Your task to perform on an android device: turn off airplane mode Image 0: 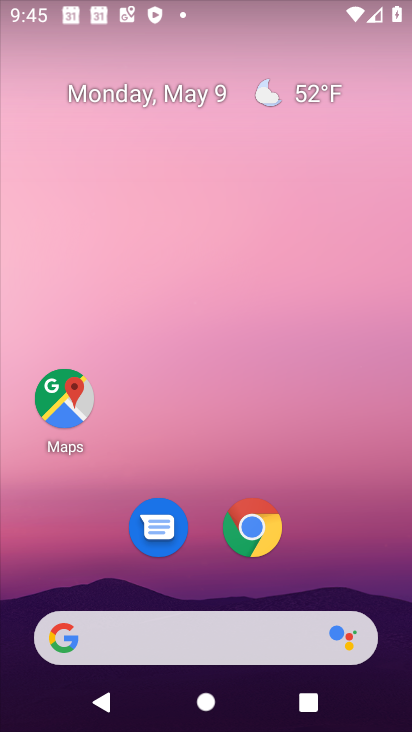
Step 0: drag from (213, 574) to (192, 78)
Your task to perform on an android device: turn off airplane mode Image 1: 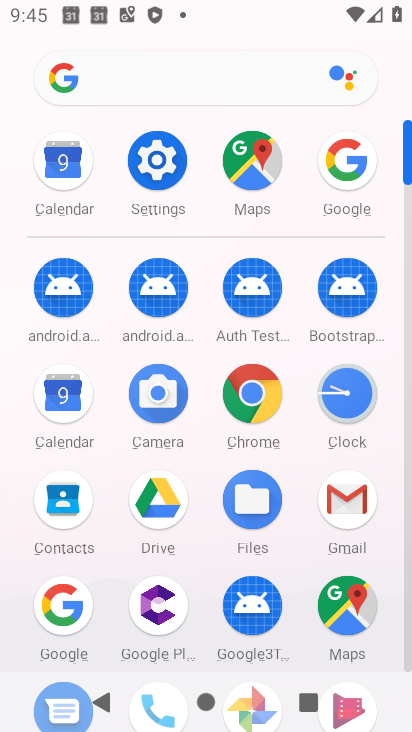
Step 1: click (162, 167)
Your task to perform on an android device: turn off airplane mode Image 2: 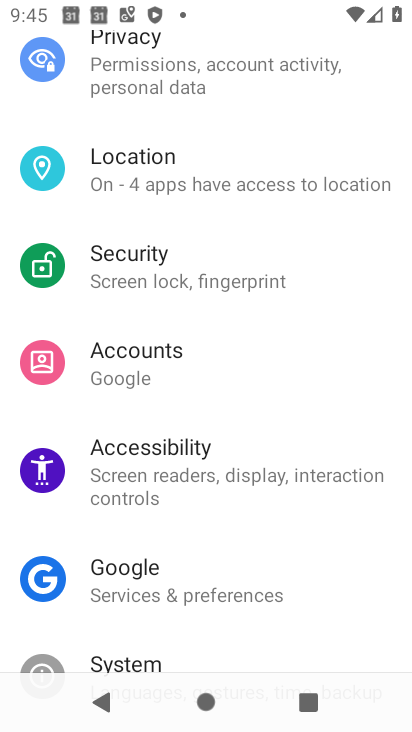
Step 2: drag from (164, 129) to (231, 686)
Your task to perform on an android device: turn off airplane mode Image 3: 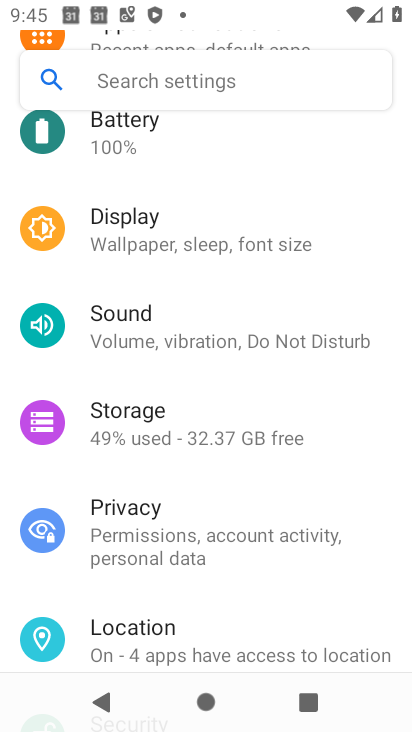
Step 3: drag from (136, 191) to (217, 725)
Your task to perform on an android device: turn off airplane mode Image 4: 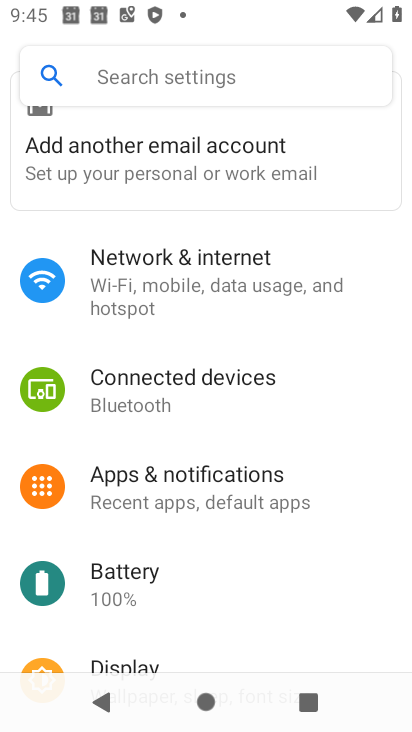
Step 4: drag from (86, 174) to (161, 546)
Your task to perform on an android device: turn off airplane mode Image 5: 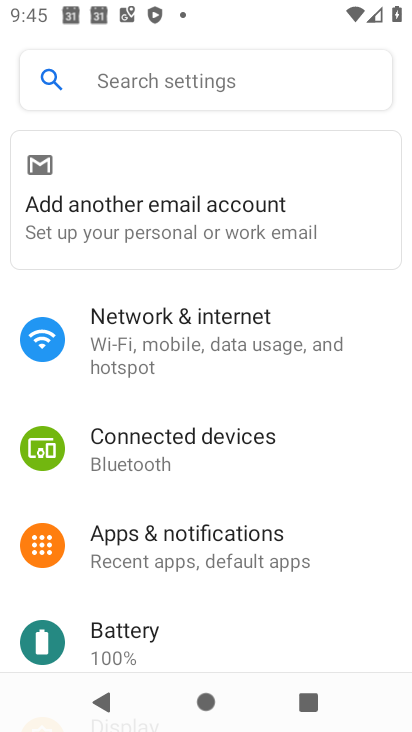
Step 5: click (153, 321)
Your task to perform on an android device: turn off airplane mode Image 6: 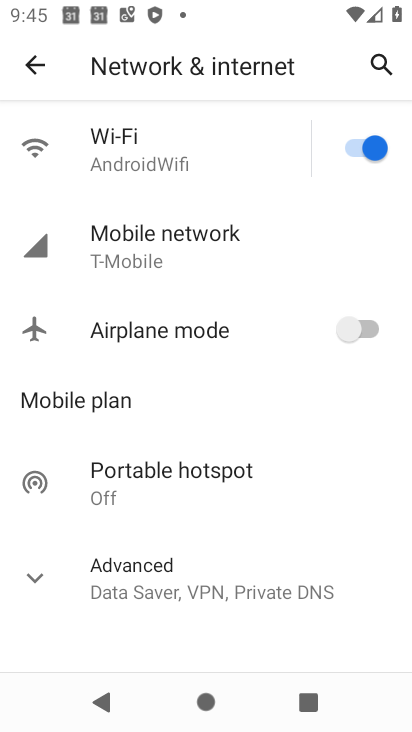
Step 6: task complete